Your task to perform on an android device: Empty the shopping cart on newegg.com. Add "lg ultragear" to the cart on newegg.com, then select checkout. Image 0: 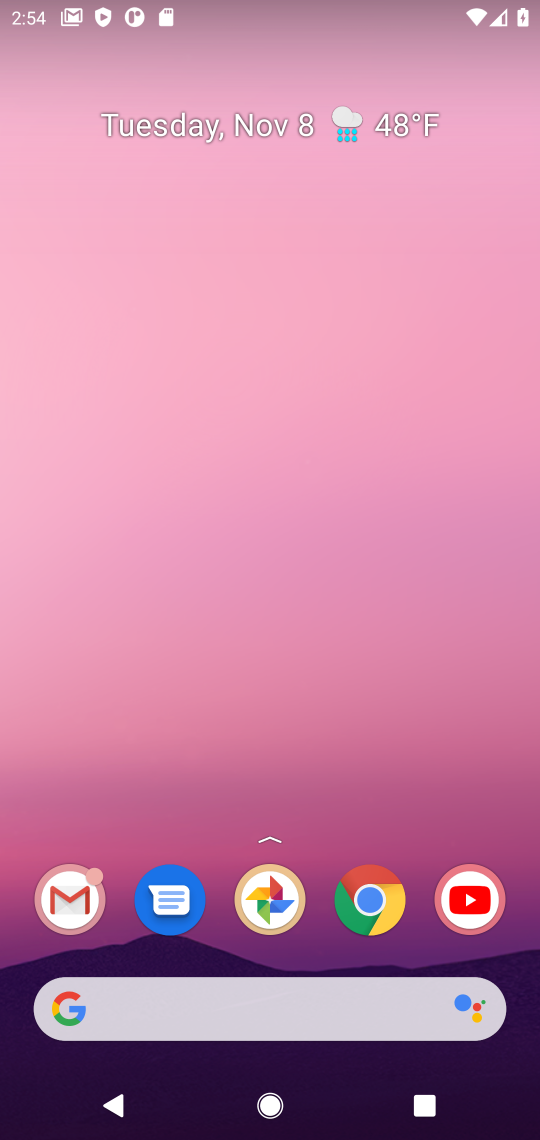
Step 0: click (375, 883)
Your task to perform on an android device: Empty the shopping cart on newegg.com. Add "lg ultragear" to the cart on newegg.com, then select checkout. Image 1: 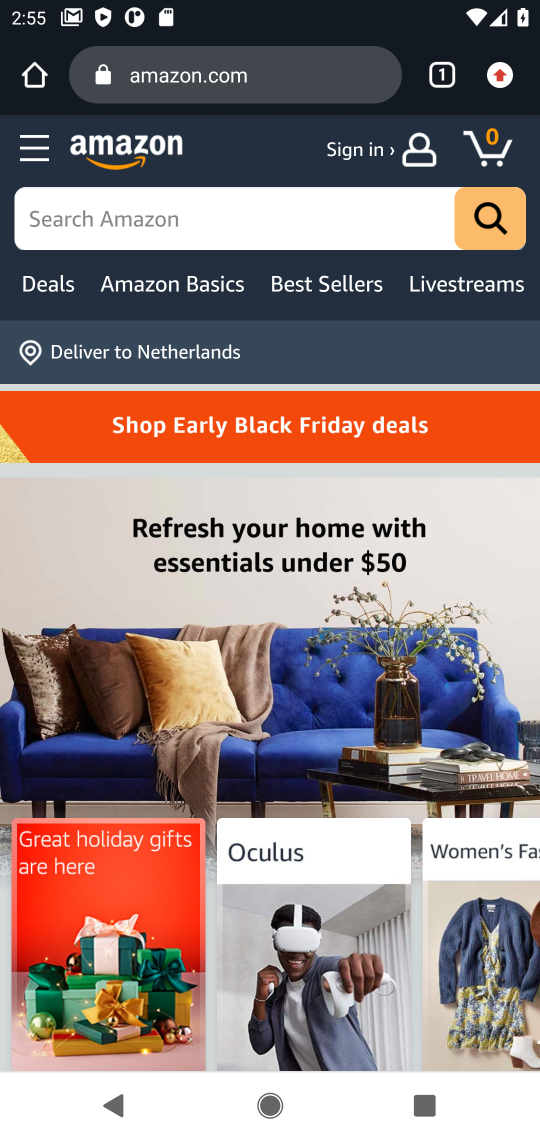
Step 1: click (304, 78)
Your task to perform on an android device: Empty the shopping cart on newegg.com. Add "lg ultragear" to the cart on newegg.com, then select checkout. Image 2: 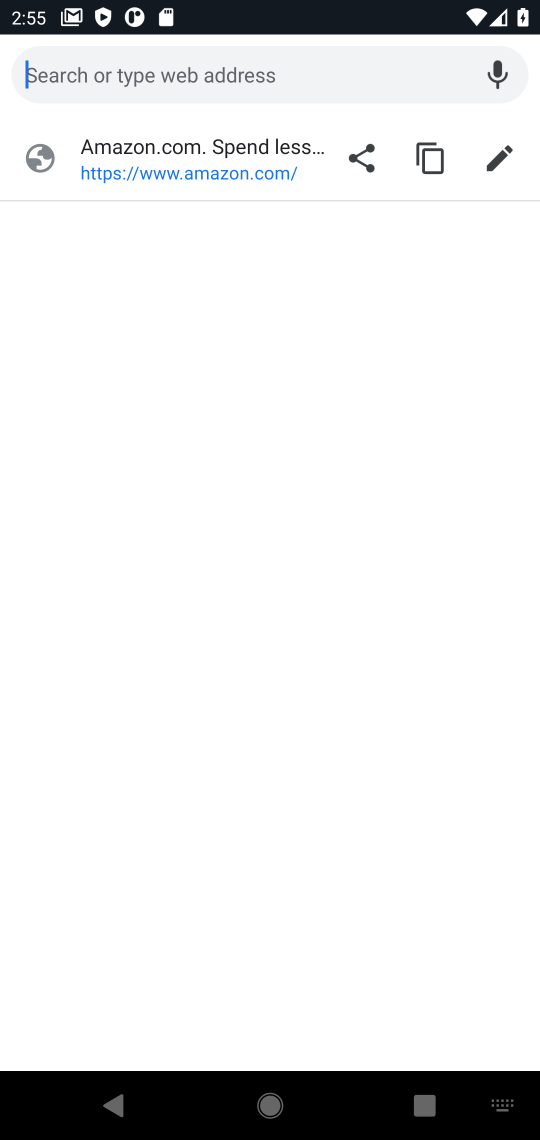
Step 2: type "newegg.com"
Your task to perform on an android device: Empty the shopping cart on newegg.com. Add "lg ultragear" to the cart on newegg.com, then select checkout. Image 3: 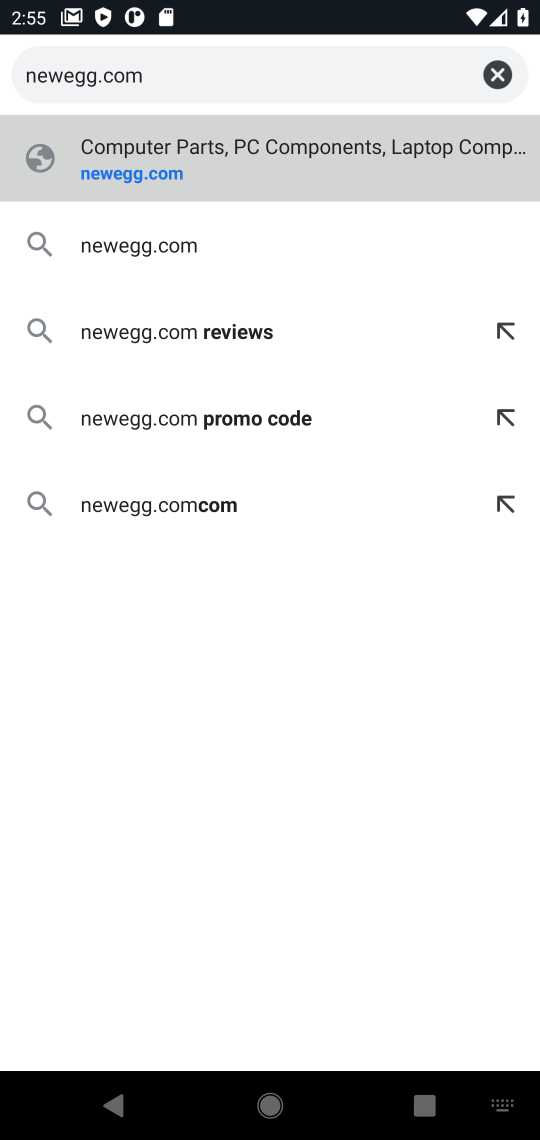
Step 3: press enter
Your task to perform on an android device: Empty the shopping cart on newegg.com. Add "lg ultragear" to the cart on newegg.com, then select checkout. Image 4: 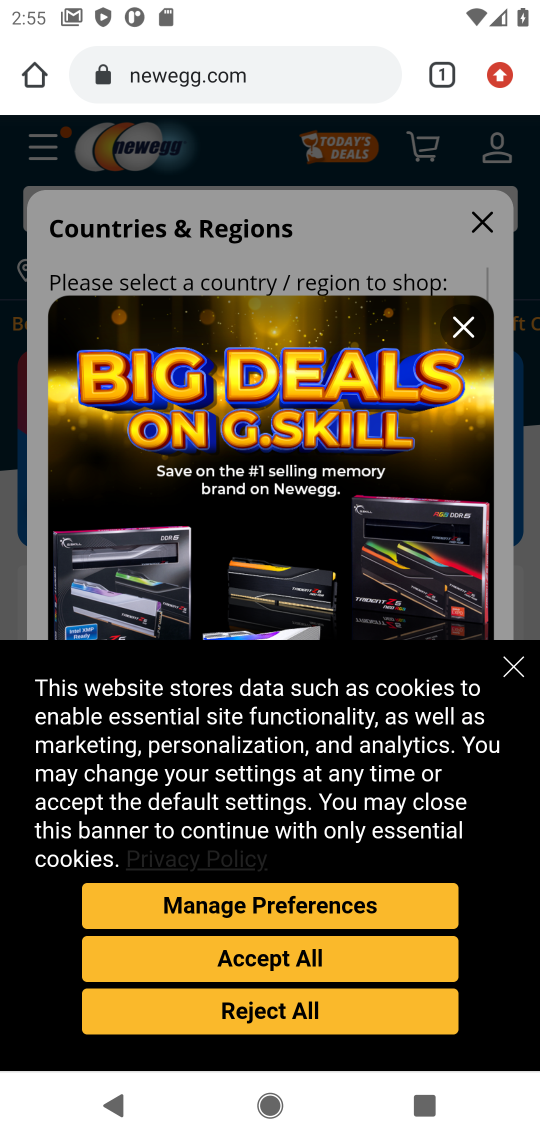
Step 4: click (466, 322)
Your task to perform on an android device: Empty the shopping cart on newegg.com. Add "lg ultragear" to the cart on newegg.com, then select checkout. Image 5: 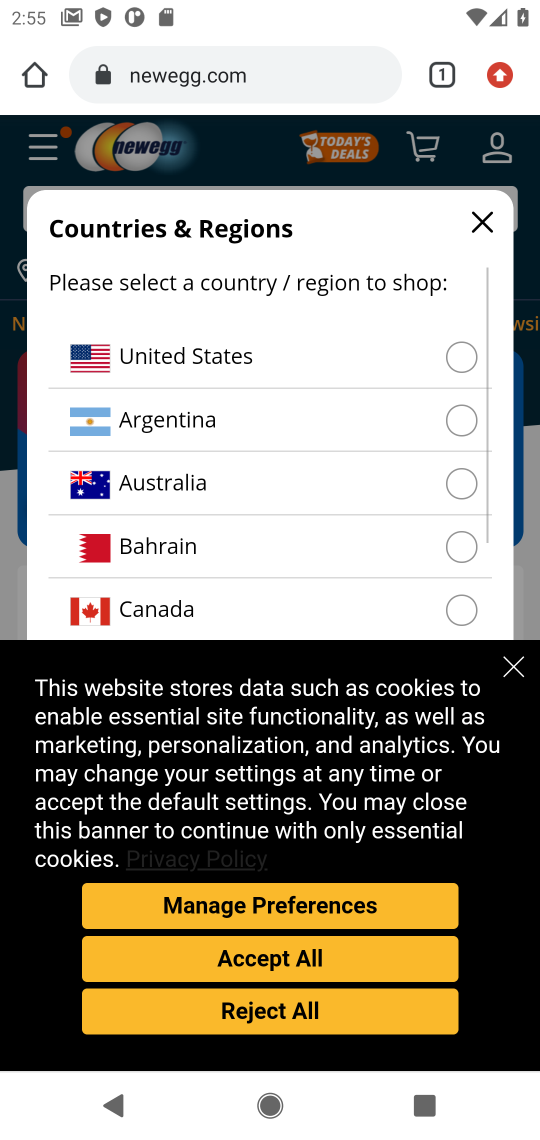
Step 5: click (515, 665)
Your task to perform on an android device: Empty the shopping cart on newegg.com. Add "lg ultragear" to the cart on newegg.com, then select checkout. Image 6: 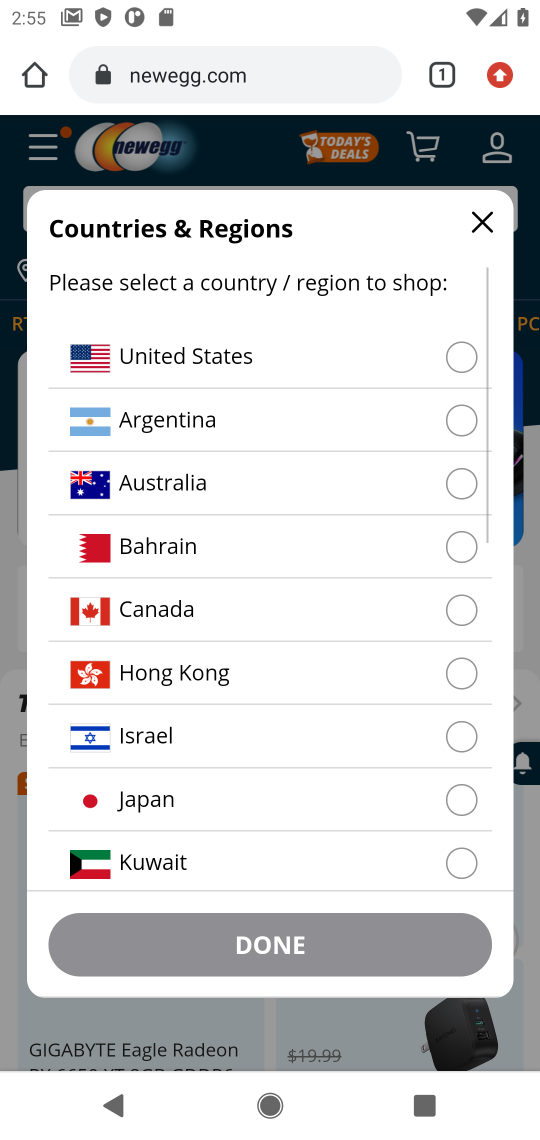
Step 6: click (463, 355)
Your task to perform on an android device: Empty the shopping cart on newegg.com. Add "lg ultragear" to the cart on newegg.com, then select checkout. Image 7: 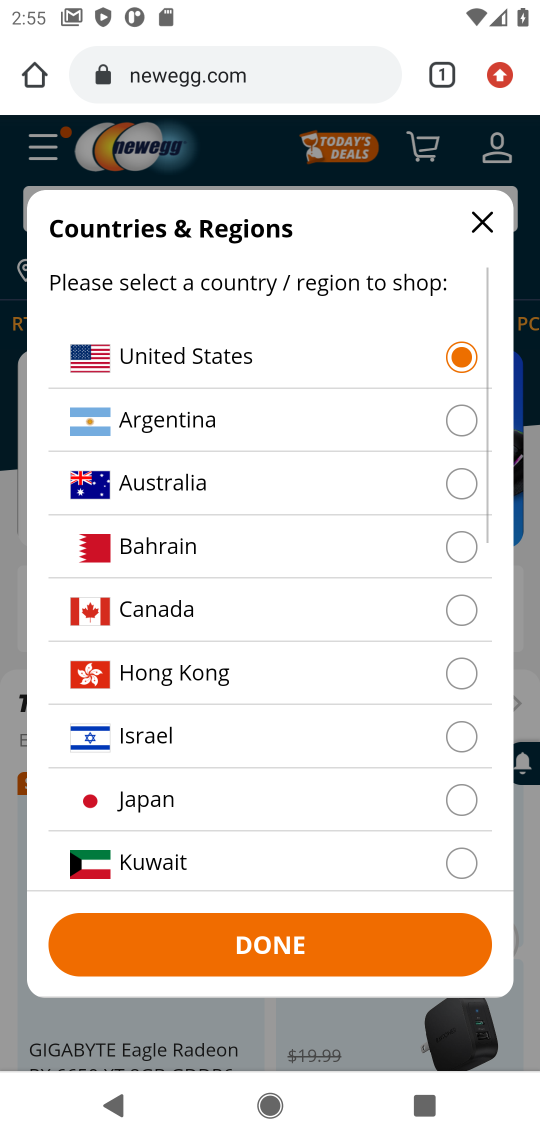
Step 7: click (393, 926)
Your task to perform on an android device: Empty the shopping cart on newegg.com. Add "lg ultragear" to the cart on newegg.com, then select checkout. Image 8: 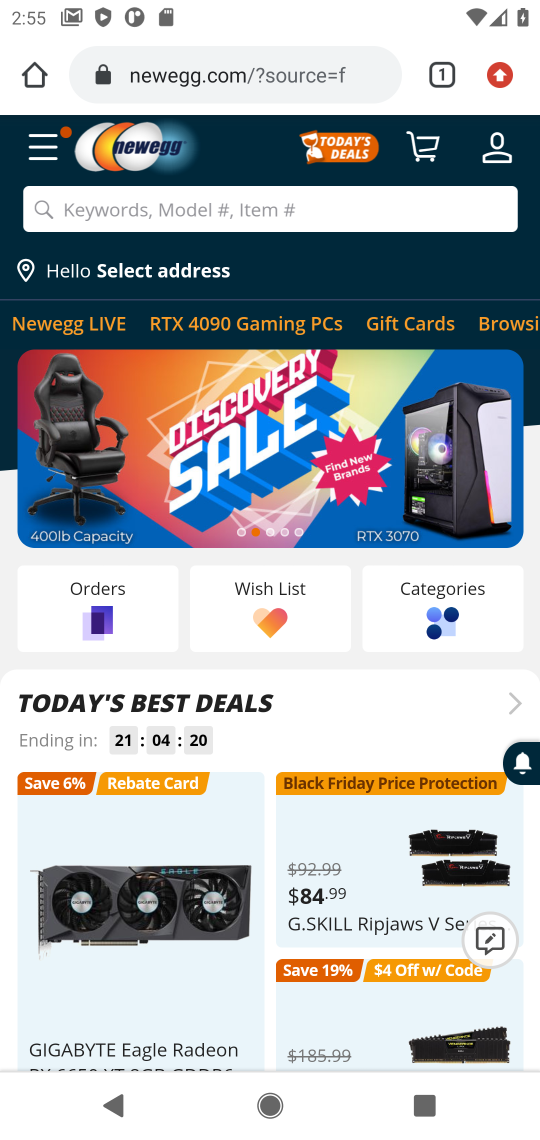
Step 8: click (325, 212)
Your task to perform on an android device: Empty the shopping cart on newegg.com. Add "lg ultragear" to the cart on newegg.com, then select checkout. Image 9: 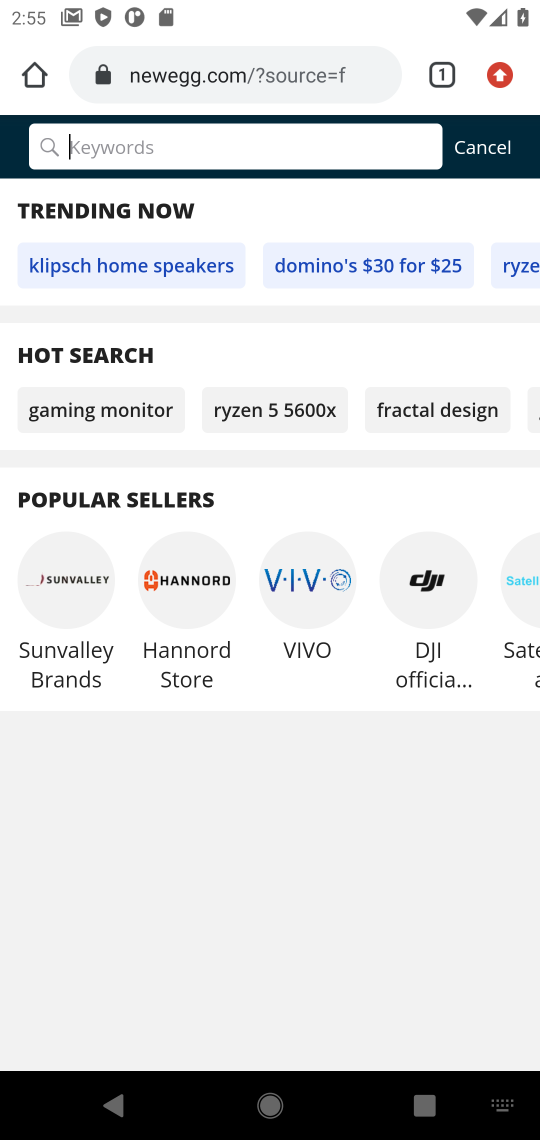
Step 9: type "lg ultragear"
Your task to perform on an android device: Empty the shopping cart on newegg.com. Add "lg ultragear" to the cart on newegg.com, then select checkout. Image 10: 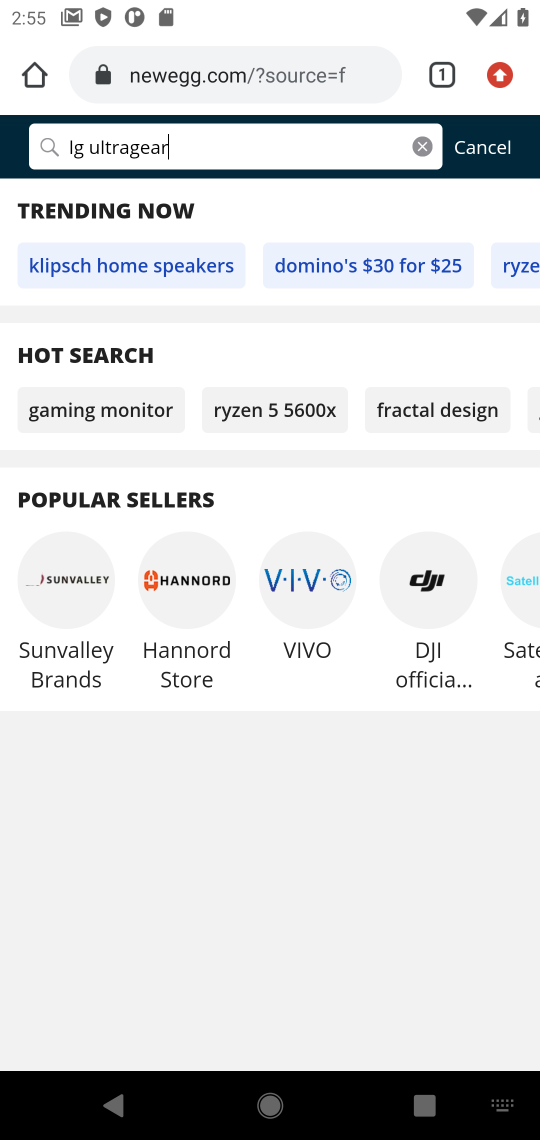
Step 10: press enter
Your task to perform on an android device: Empty the shopping cart on newegg.com. Add "lg ultragear" to the cart on newegg.com, then select checkout. Image 11: 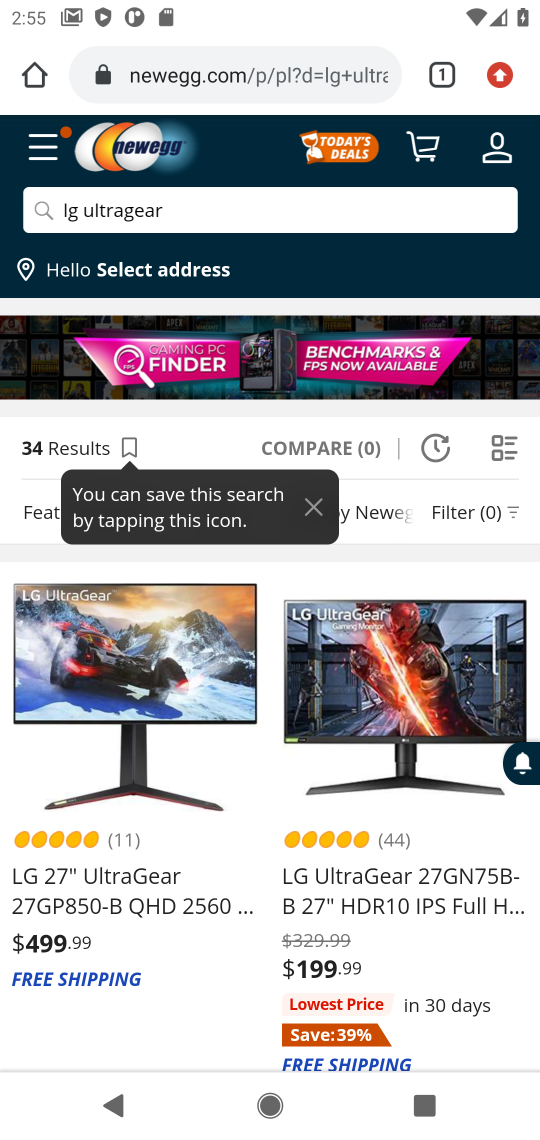
Step 11: click (147, 686)
Your task to perform on an android device: Empty the shopping cart on newegg.com. Add "lg ultragear" to the cart on newegg.com, then select checkout. Image 12: 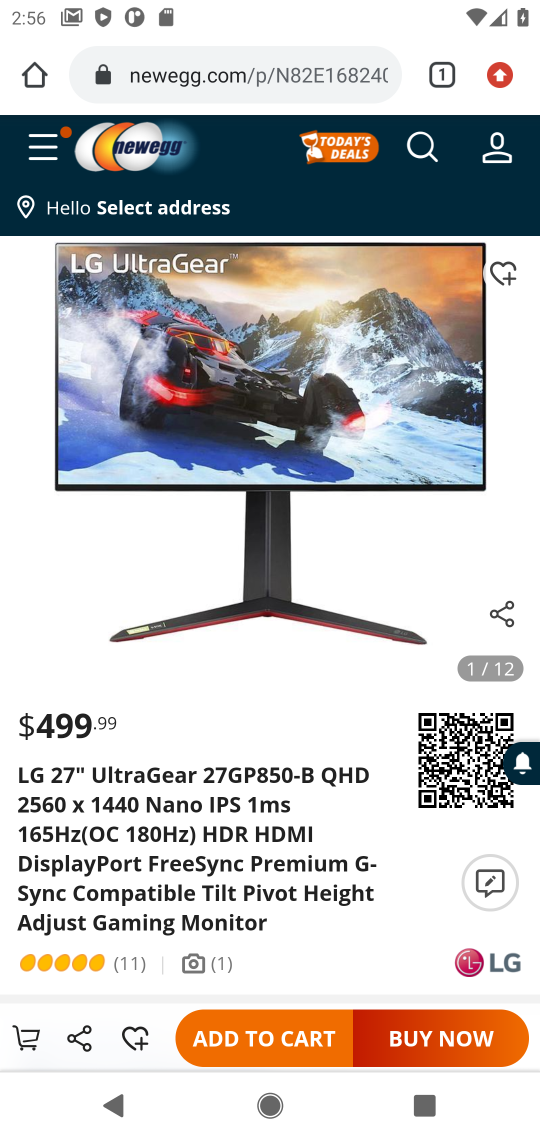
Step 12: click (283, 1041)
Your task to perform on an android device: Empty the shopping cart on newegg.com. Add "lg ultragear" to the cart on newegg.com, then select checkout. Image 13: 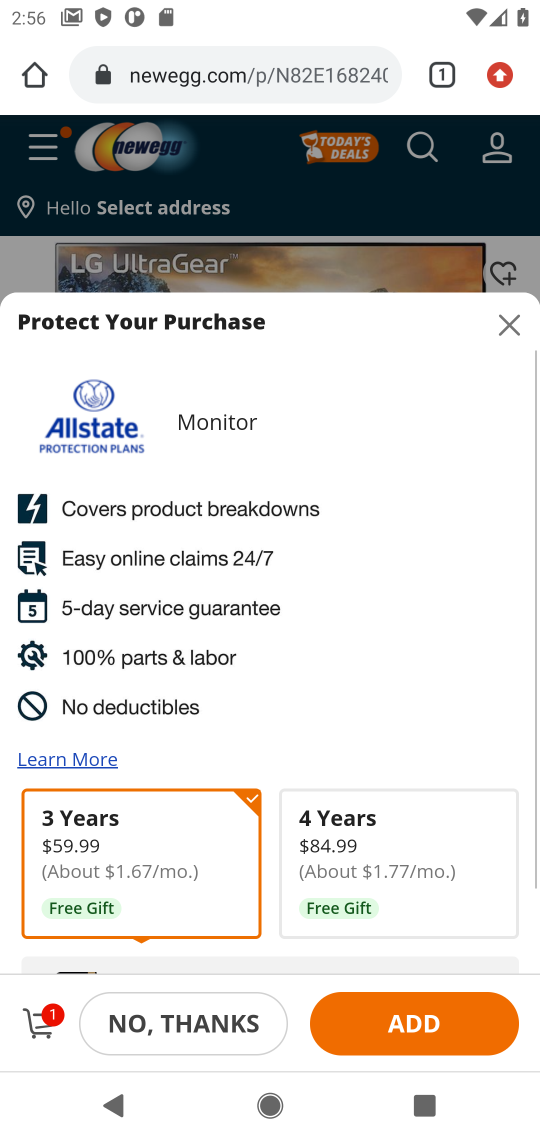
Step 13: click (510, 320)
Your task to perform on an android device: Empty the shopping cart on newegg.com. Add "lg ultragear" to the cart on newegg.com, then select checkout. Image 14: 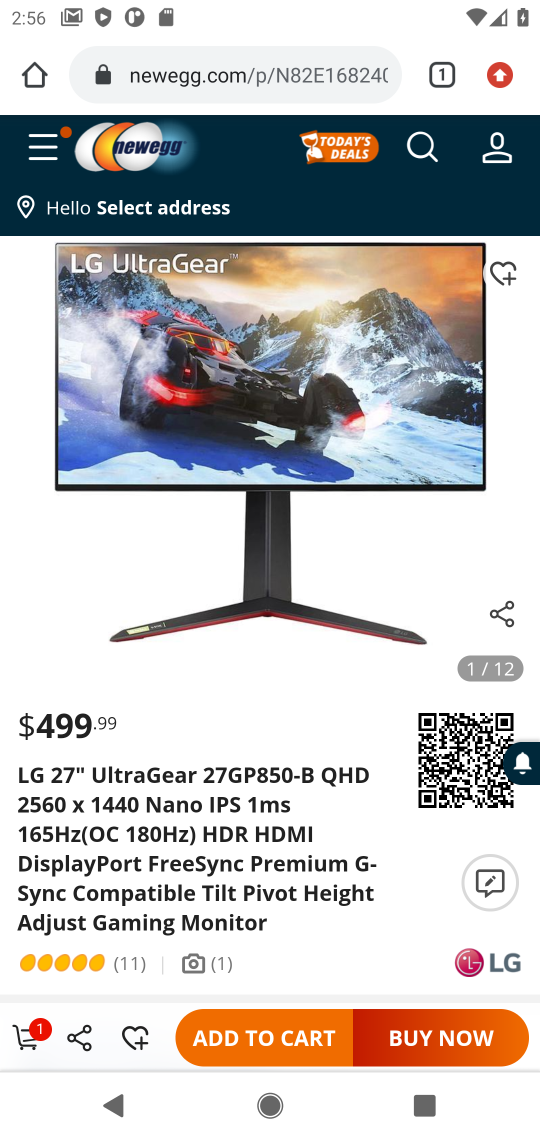
Step 14: click (26, 1033)
Your task to perform on an android device: Empty the shopping cart on newegg.com. Add "lg ultragear" to the cart on newegg.com, then select checkout. Image 15: 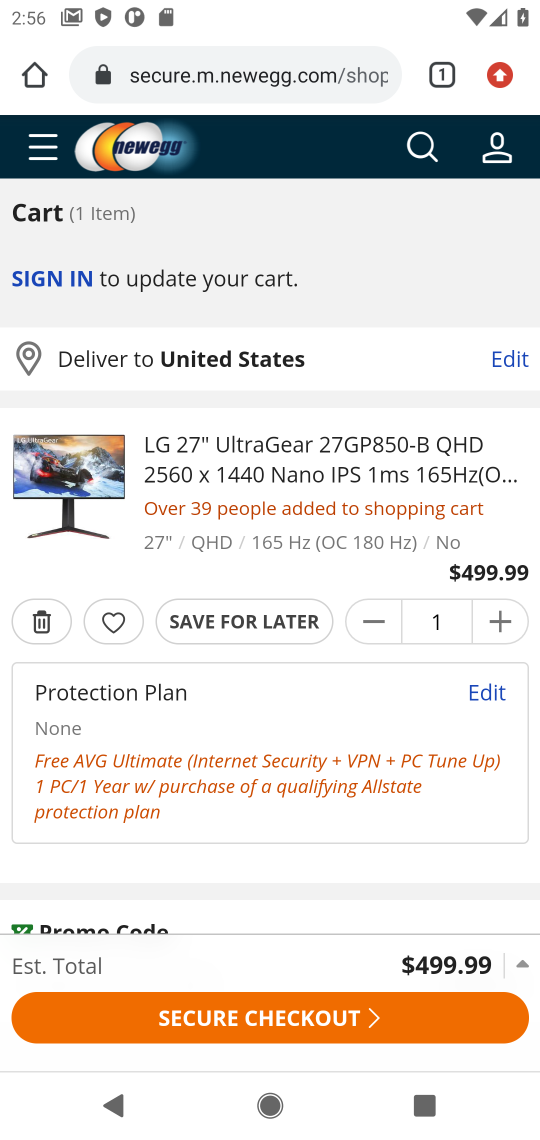
Step 15: click (232, 1015)
Your task to perform on an android device: Empty the shopping cart on newegg.com. Add "lg ultragear" to the cart on newegg.com, then select checkout. Image 16: 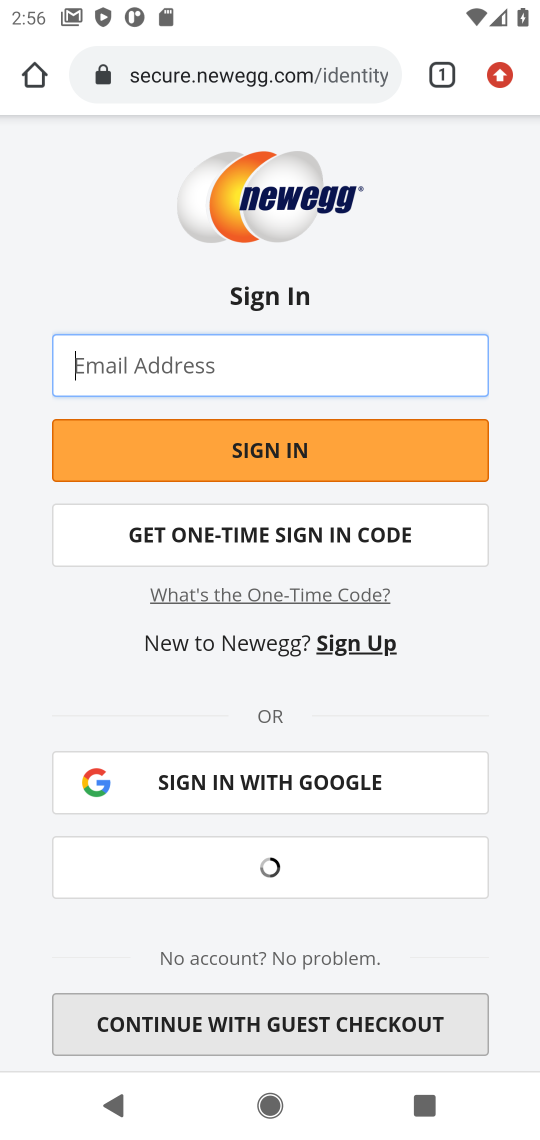
Step 16: task complete